Your task to perform on an android device: Open the web browser Image 0: 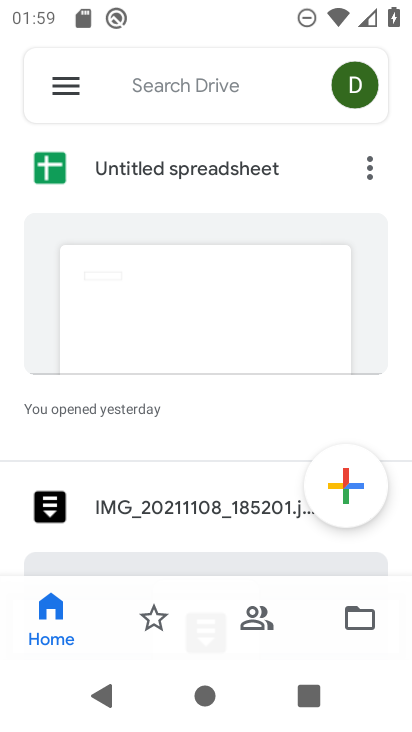
Step 0: press home button
Your task to perform on an android device: Open the web browser Image 1: 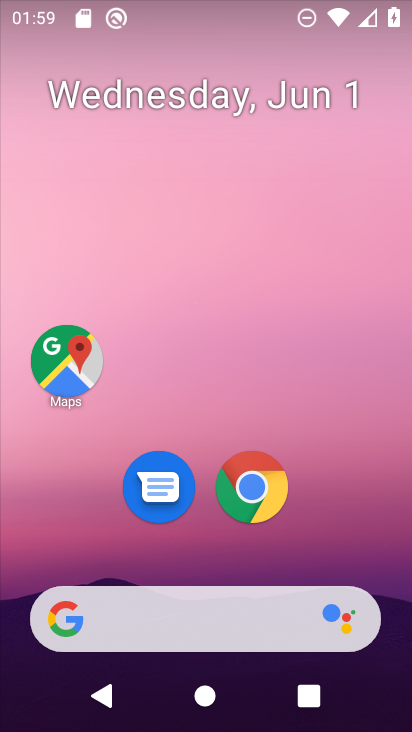
Step 1: click (259, 473)
Your task to perform on an android device: Open the web browser Image 2: 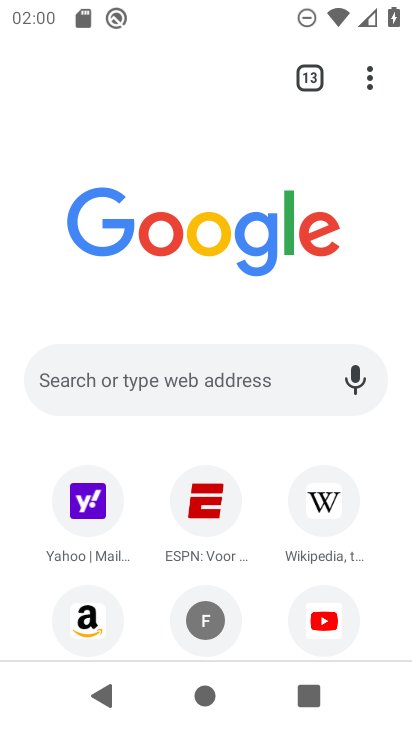
Step 2: task complete